Your task to perform on an android device: Open Youtube and go to the subscriptions tab Image 0: 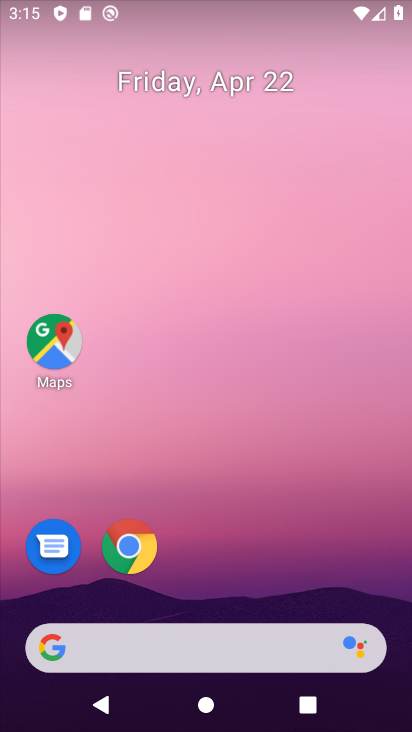
Step 0: drag from (250, 557) to (308, 90)
Your task to perform on an android device: Open Youtube and go to the subscriptions tab Image 1: 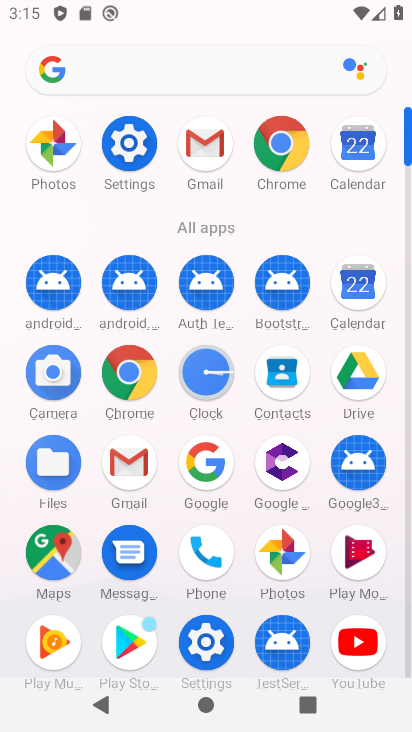
Step 1: click (358, 647)
Your task to perform on an android device: Open Youtube and go to the subscriptions tab Image 2: 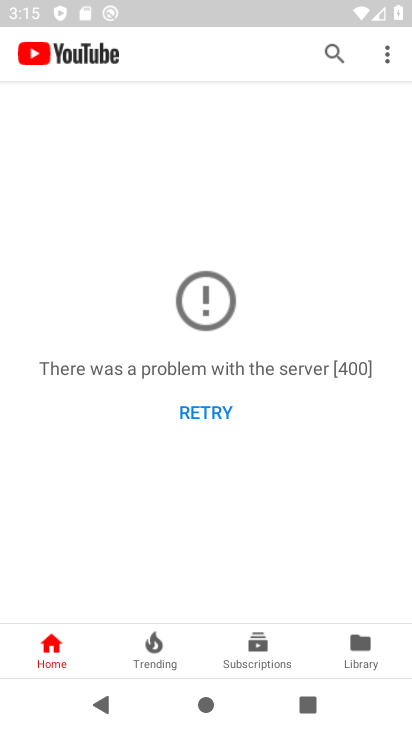
Step 2: click (255, 650)
Your task to perform on an android device: Open Youtube and go to the subscriptions tab Image 3: 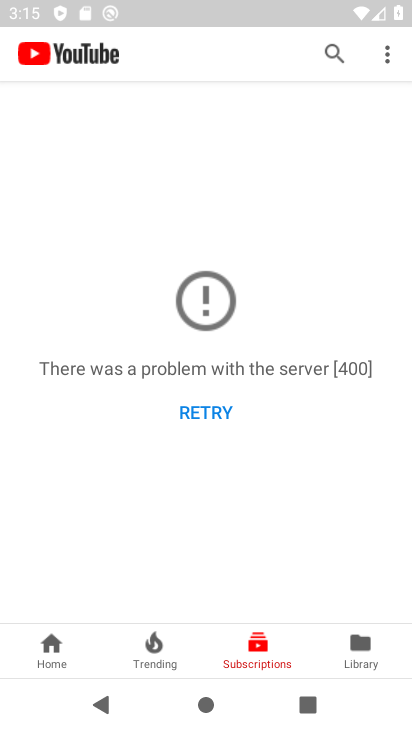
Step 3: task complete